Your task to perform on an android device: Check the weather Image 0: 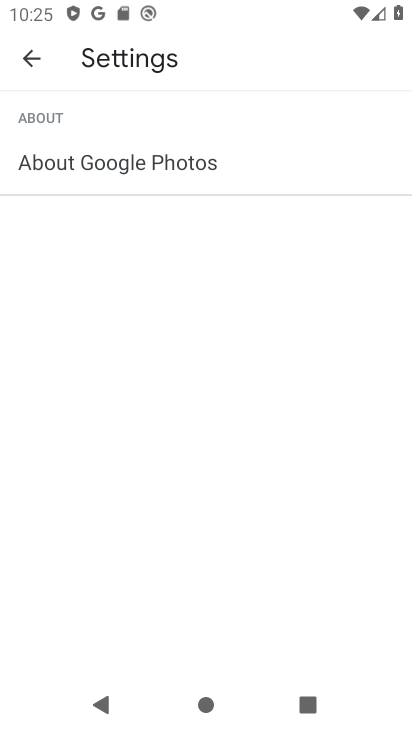
Step 0: press back button
Your task to perform on an android device: Check the weather Image 1: 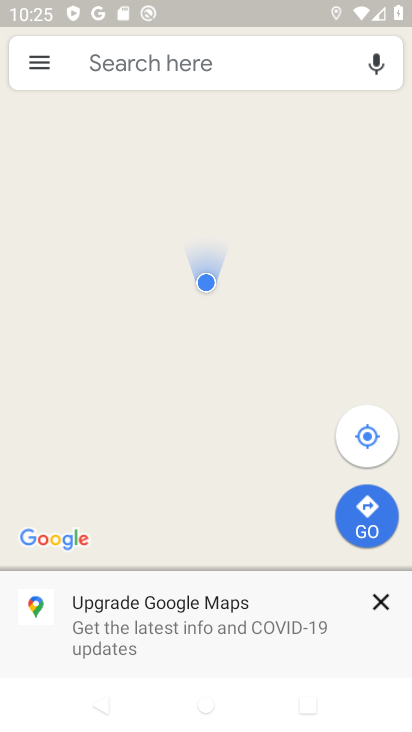
Step 1: press back button
Your task to perform on an android device: Check the weather Image 2: 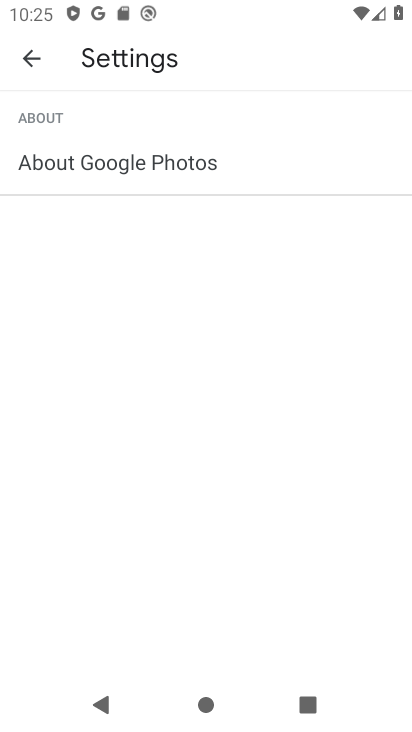
Step 2: press back button
Your task to perform on an android device: Check the weather Image 3: 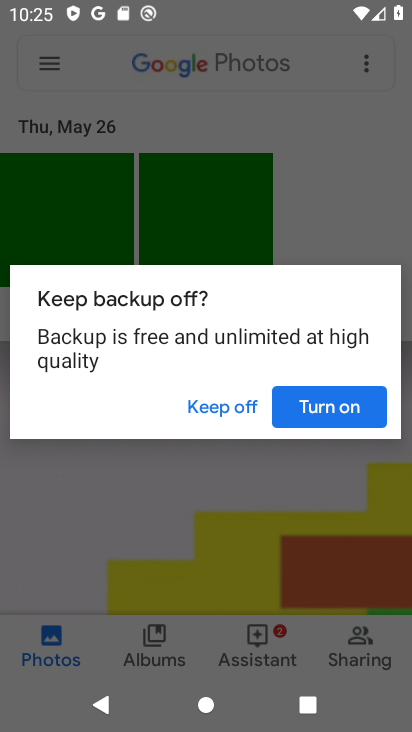
Step 3: press home button
Your task to perform on an android device: Check the weather Image 4: 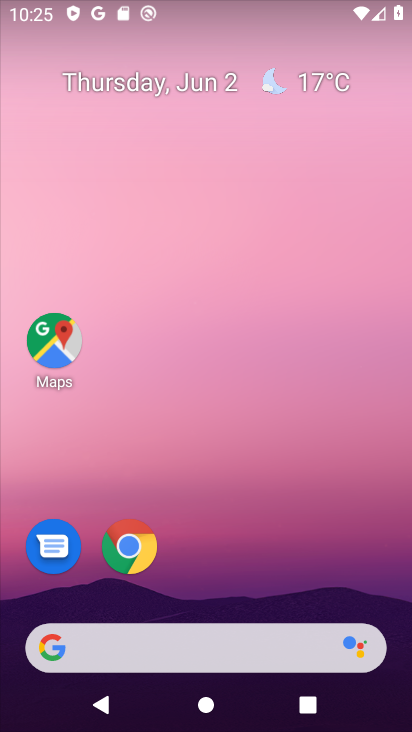
Step 4: drag from (260, 542) to (247, 21)
Your task to perform on an android device: Check the weather Image 5: 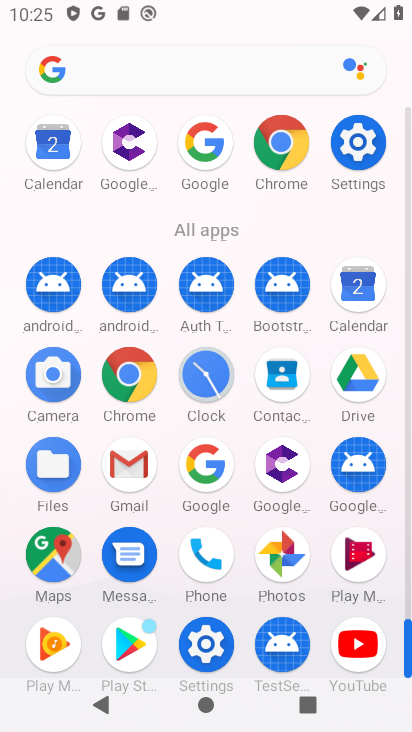
Step 5: click (284, 139)
Your task to perform on an android device: Check the weather Image 6: 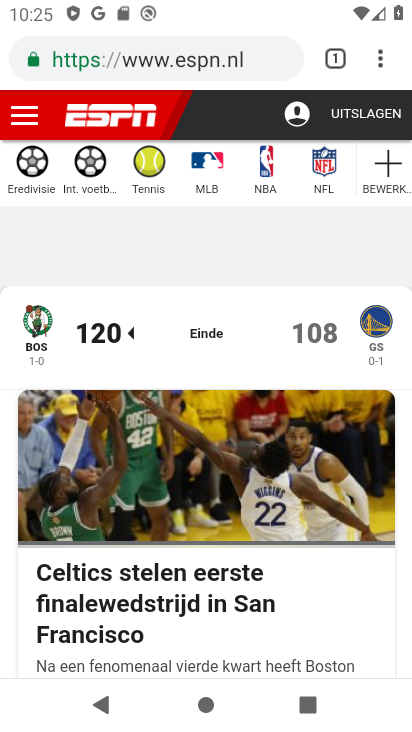
Step 6: click (217, 54)
Your task to perform on an android device: Check the weather Image 7: 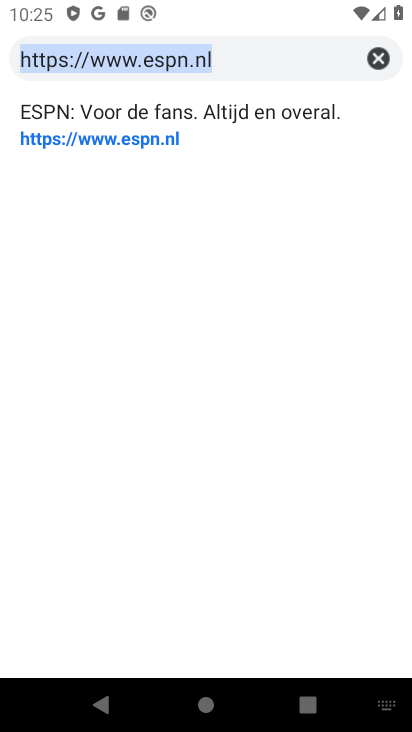
Step 7: click (378, 56)
Your task to perform on an android device: Check the weather Image 8: 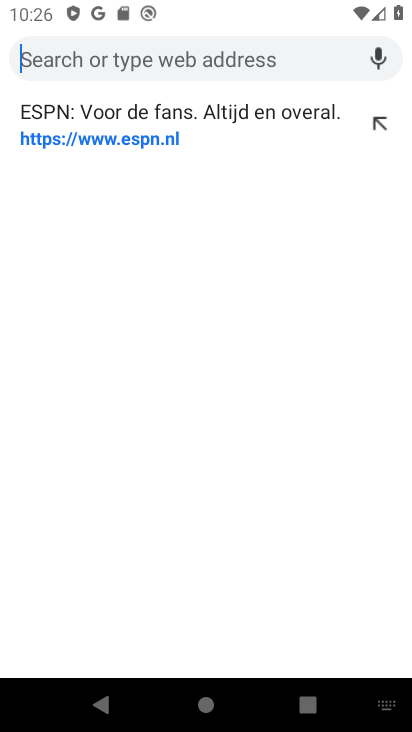
Step 8: type "Check the weather"
Your task to perform on an android device: Check the weather Image 9: 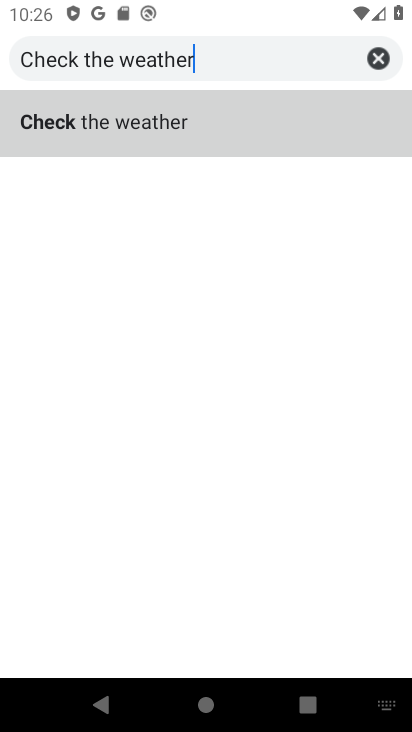
Step 9: click (173, 121)
Your task to perform on an android device: Check the weather Image 10: 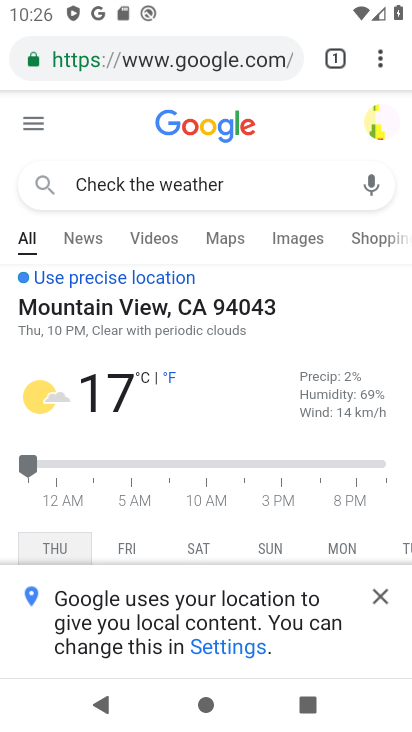
Step 10: click (386, 596)
Your task to perform on an android device: Check the weather Image 11: 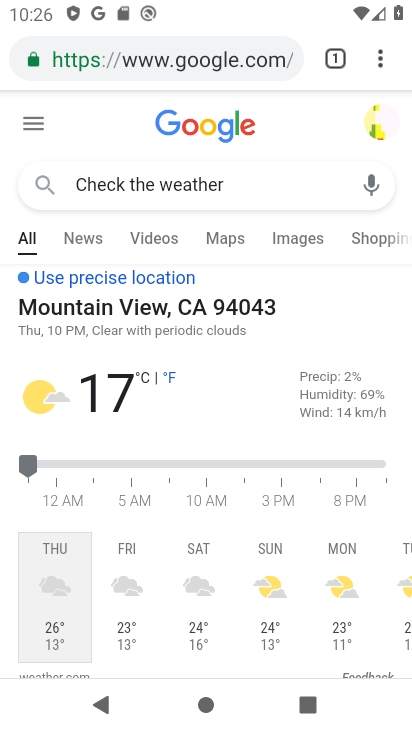
Step 11: task complete